Your task to perform on an android device: change notifications settings Image 0: 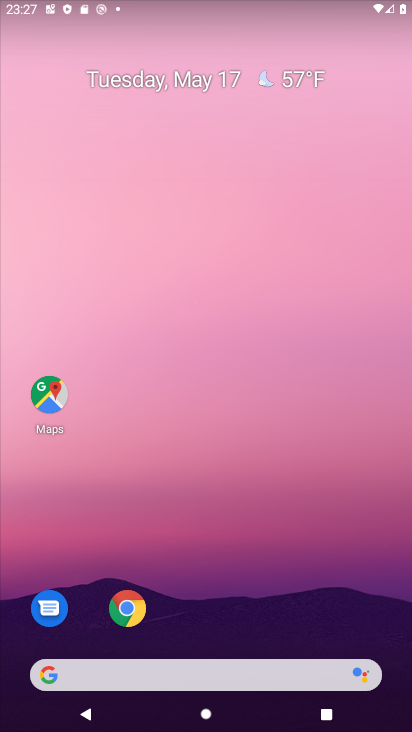
Step 0: drag from (202, 490) to (249, 180)
Your task to perform on an android device: change notifications settings Image 1: 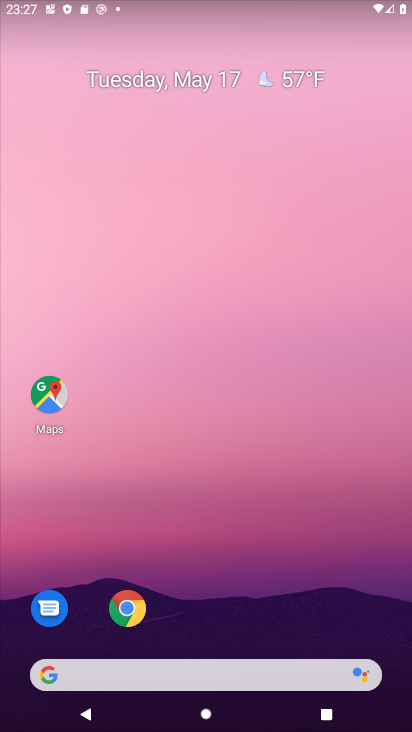
Step 1: drag from (205, 588) to (295, 5)
Your task to perform on an android device: change notifications settings Image 2: 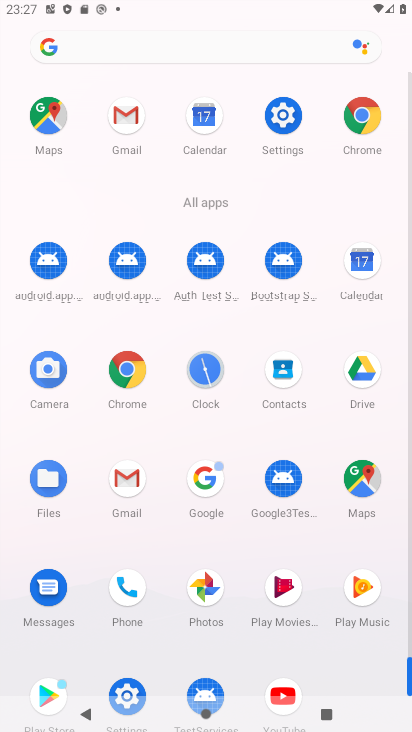
Step 2: click (294, 123)
Your task to perform on an android device: change notifications settings Image 3: 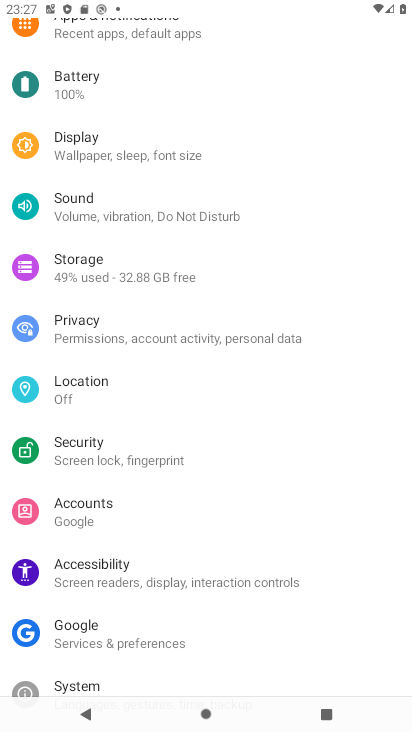
Step 3: drag from (193, 193) to (155, 585)
Your task to perform on an android device: change notifications settings Image 4: 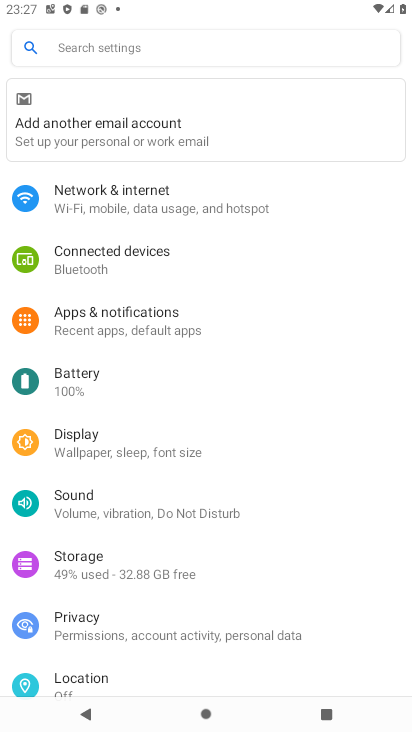
Step 4: click (135, 316)
Your task to perform on an android device: change notifications settings Image 5: 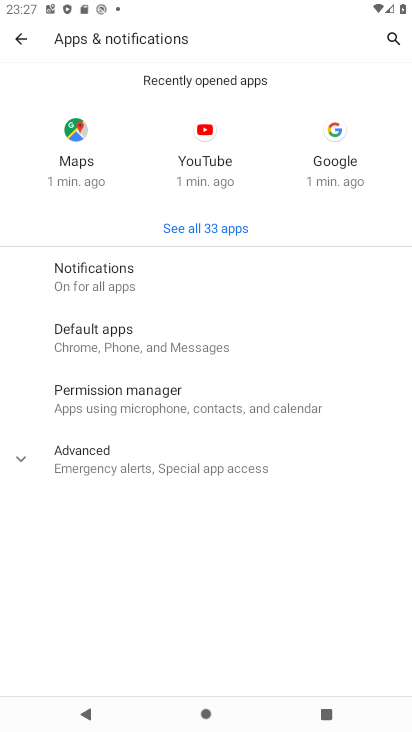
Step 5: click (109, 271)
Your task to perform on an android device: change notifications settings Image 6: 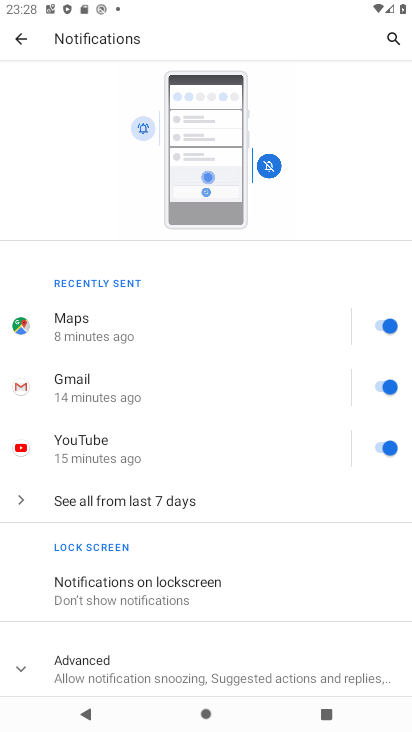
Step 6: drag from (243, 596) to (243, 403)
Your task to perform on an android device: change notifications settings Image 7: 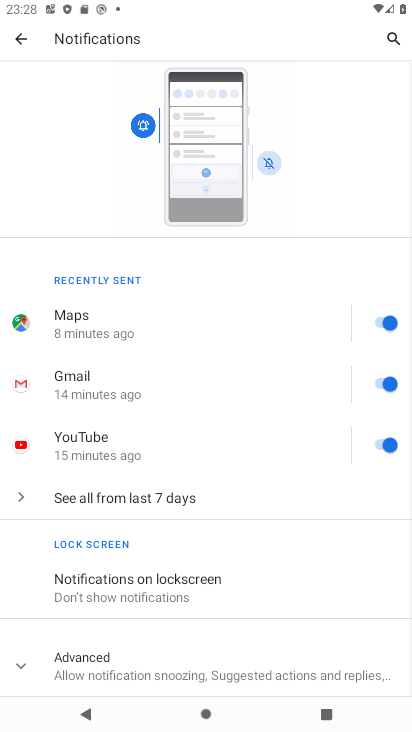
Step 7: click (365, 321)
Your task to perform on an android device: change notifications settings Image 8: 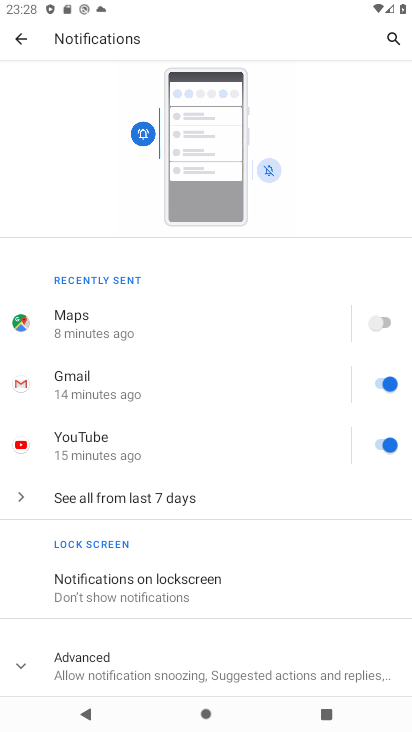
Step 8: click (383, 379)
Your task to perform on an android device: change notifications settings Image 9: 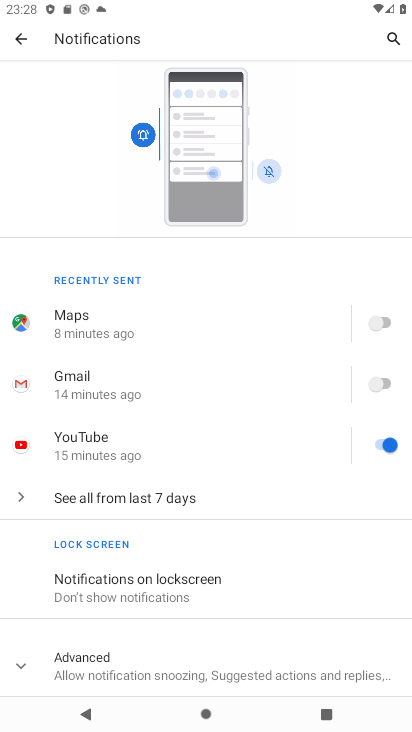
Step 9: click (381, 445)
Your task to perform on an android device: change notifications settings Image 10: 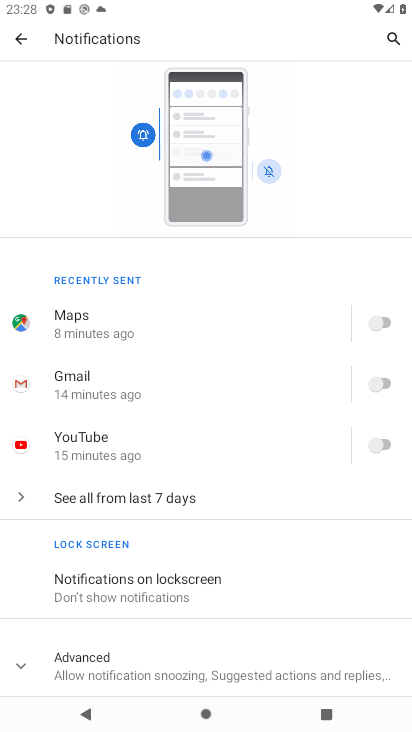
Step 10: click (137, 503)
Your task to perform on an android device: change notifications settings Image 11: 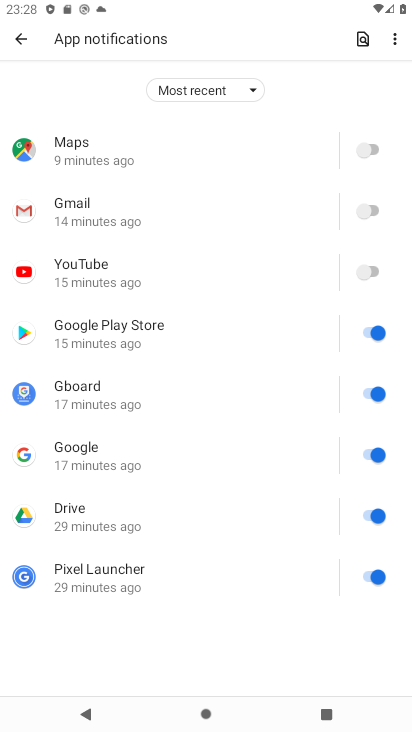
Step 11: click (365, 326)
Your task to perform on an android device: change notifications settings Image 12: 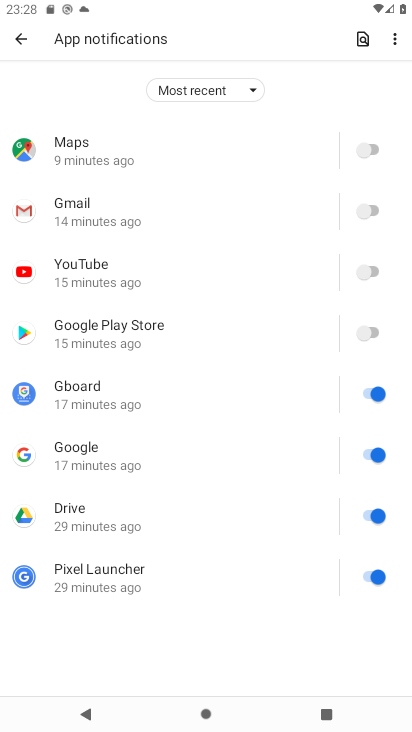
Step 12: click (369, 388)
Your task to perform on an android device: change notifications settings Image 13: 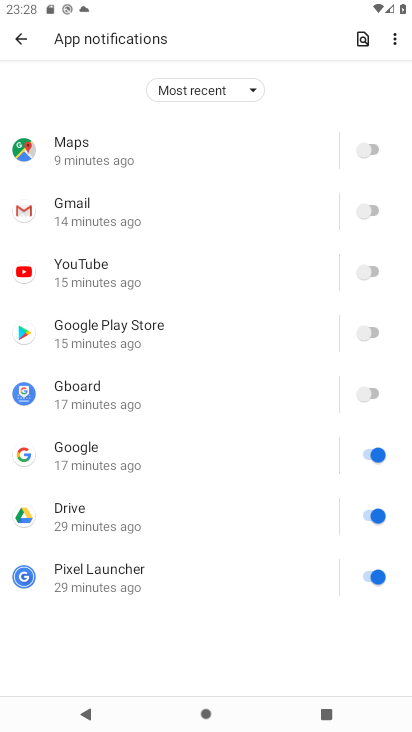
Step 13: click (365, 459)
Your task to perform on an android device: change notifications settings Image 14: 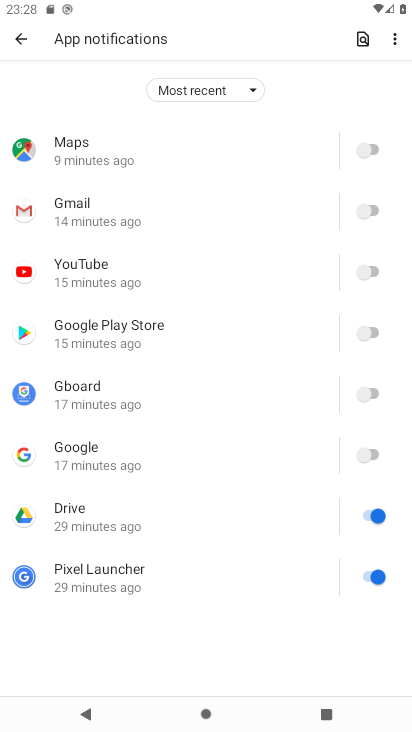
Step 14: click (368, 518)
Your task to perform on an android device: change notifications settings Image 15: 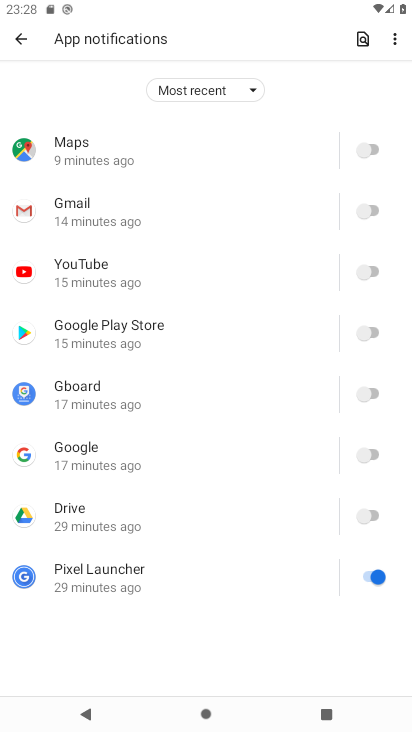
Step 15: click (365, 590)
Your task to perform on an android device: change notifications settings Image 16: 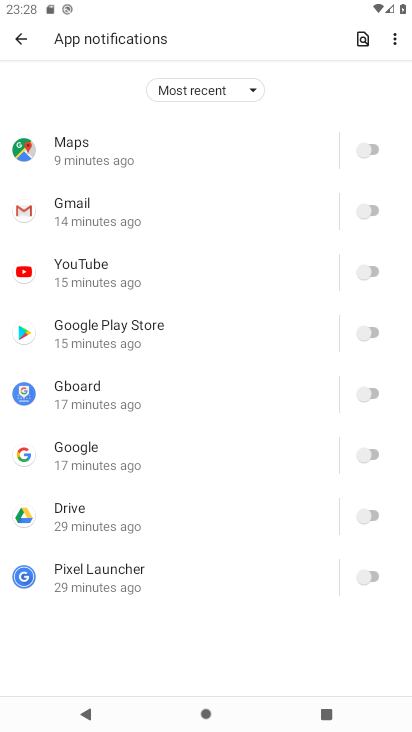
Step 16: task complete